Your task to perform on an android device: Open settings Image 0: 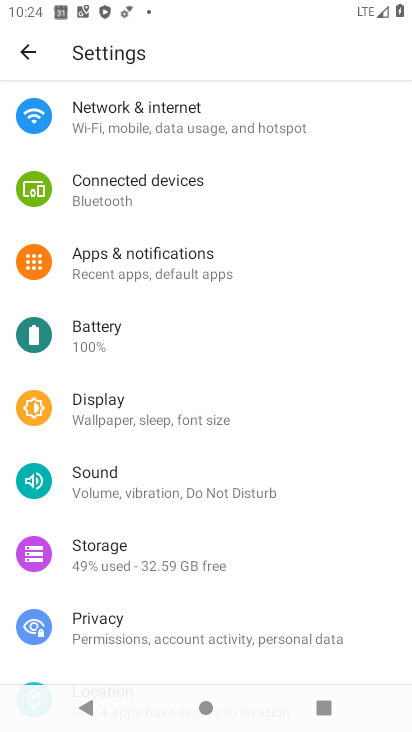
Step 0: press home button
Your task to perform on an android device: Open settings Image 1: 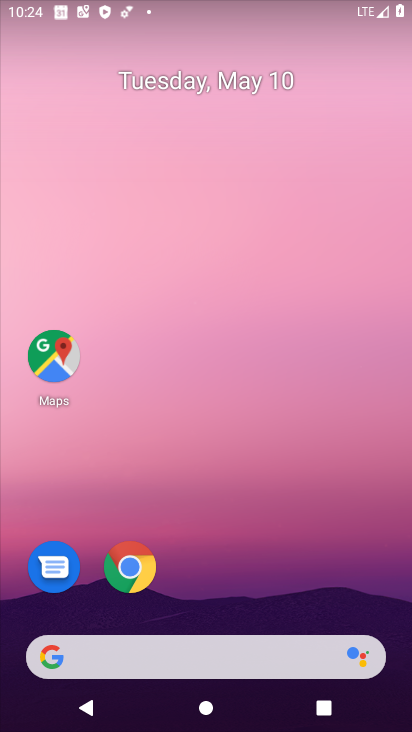
Step 1: drag from (39, 635) to (247, 76)
Your task to perform on an android device: Open settings Image 2: 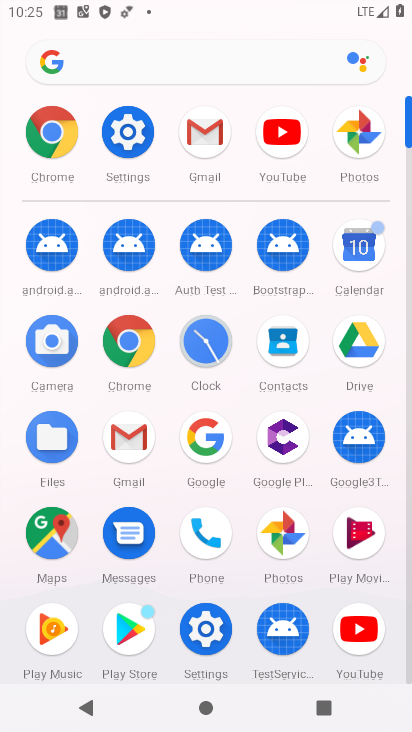
Step 2: click (133, 130)
Your task to perform on an android device: Open settings Image 3: 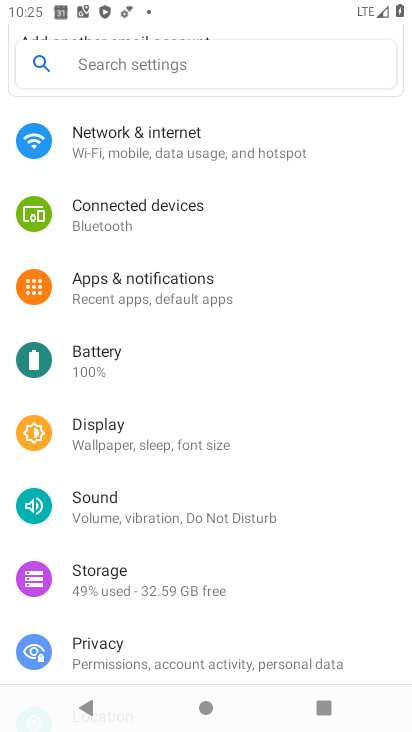
Step 3: task complete